Your task to perform on an android device: Open Google Chrome and open the bookmarks view Image 0: 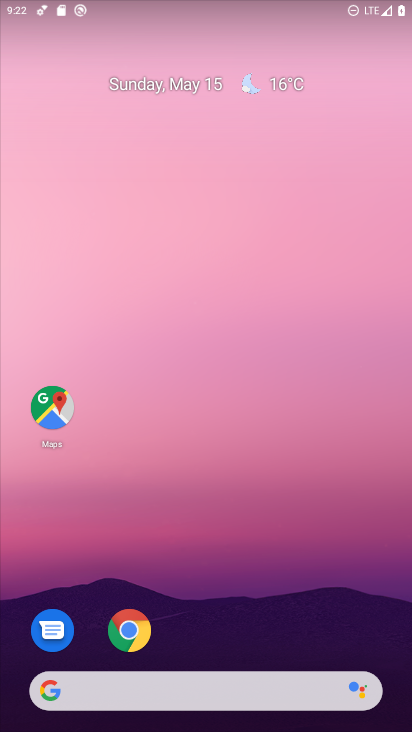
Step 0: drag from (173, 628) to (165, 271)
Your task to perform on an android device: Open Google Chrome and open the bookmarks view Image 1: 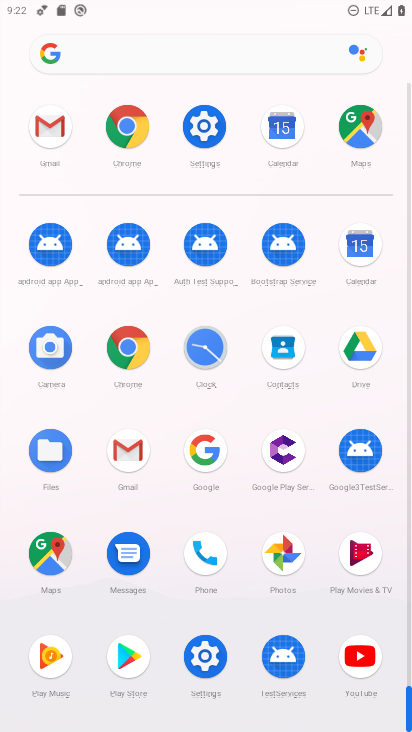
Step 1: click (113, 139)
Your task to perform on an android device: Open Google Chrome and open the bookmarks view Image 2: 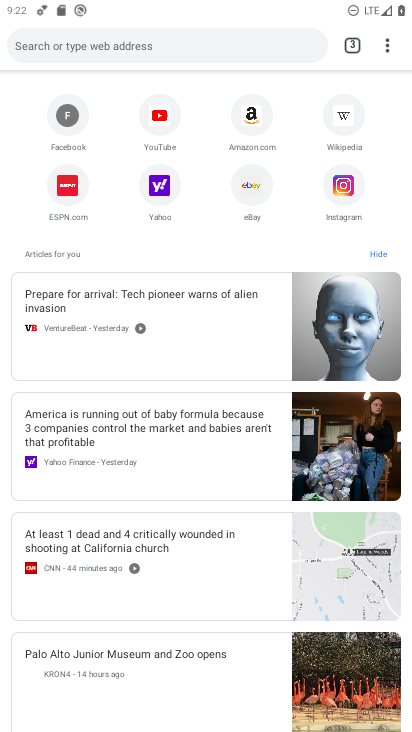
Step 2: click (388, 57)
Your task to perform on an android device: Open Google Chrome and open the bookmarks view Image 3: 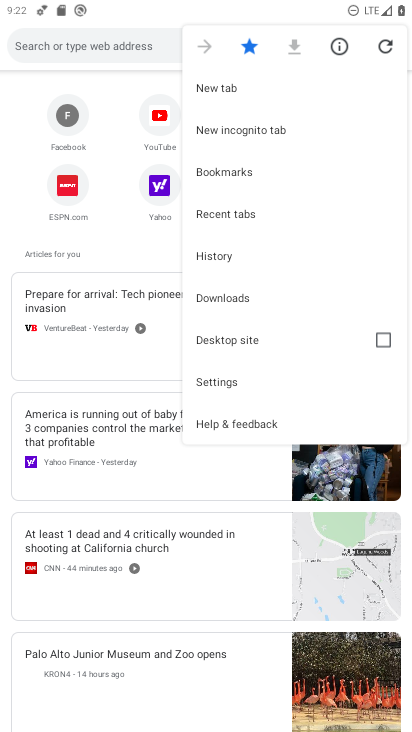
Step 3: click (254, 186)
Your task to perform on an android device: Open Google Chrome and open the bookmarks view Image 4: 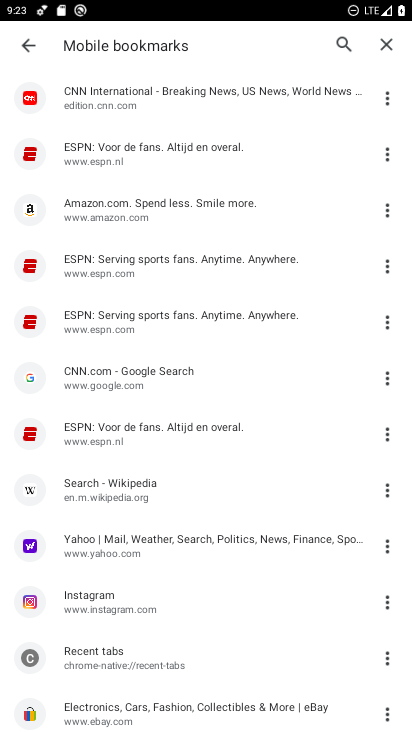
Step 4: task complete